Your task to perform on an android device: check battery use Image 0: 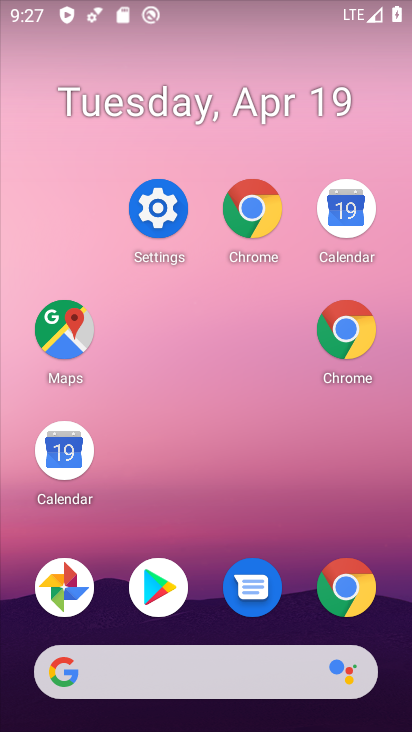
Step 0: drag from (309, 641) to (74, 76)
Your task to perform on an android device: check battery use Image 1: 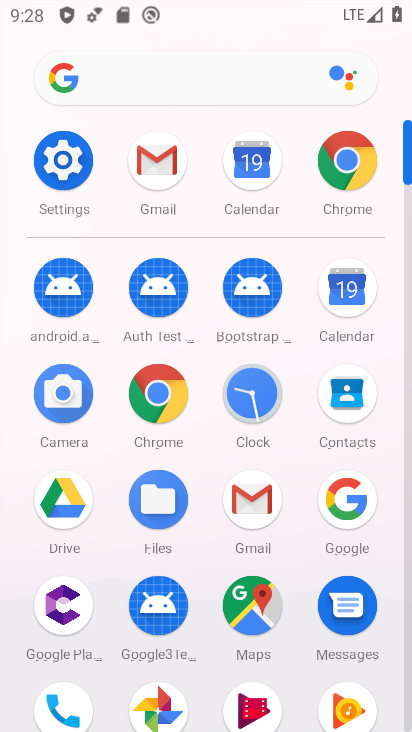
Step 1: click (246, 399)
Your task to perform on an android device: check battery use Image 2: 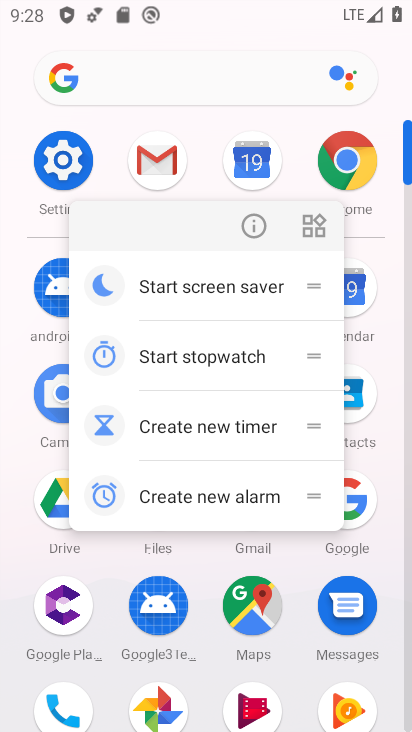
Step 2: click (404, 400)
Your task to perform on an android device: check battery use Image 3: 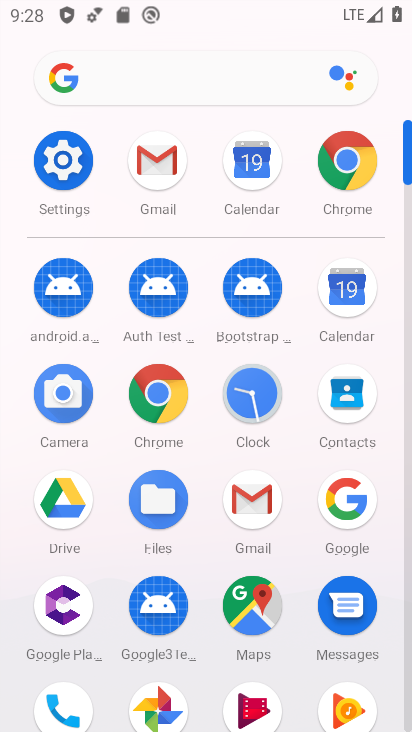
Step 3: click (59, 154)
Your task to perform on an android device: check battery use Image 4: 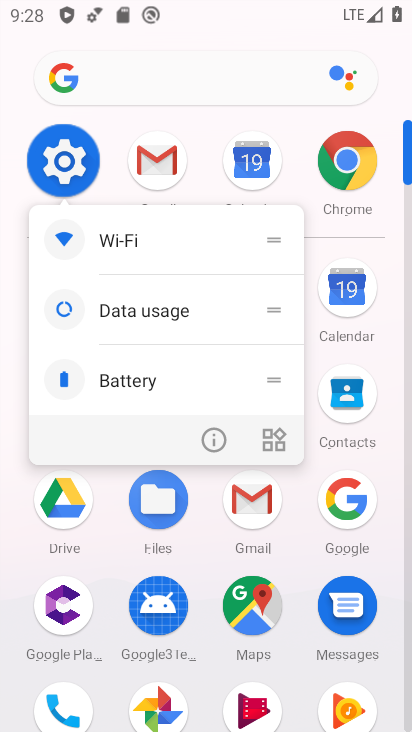
Step 4: click (59, 154)
Your task to perform on an android device: check battery use Image 5: 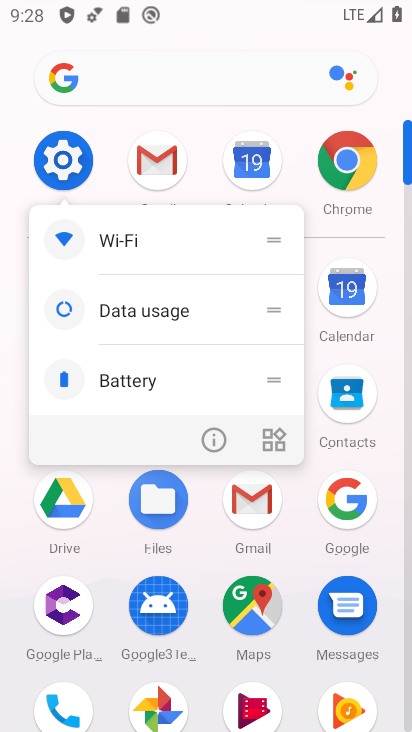
Step 5: click (61, 155)
Your task to perform on an android device: check battery use Image 6: 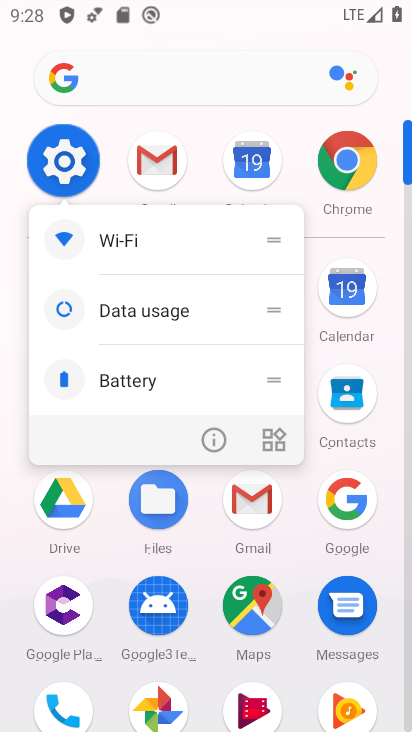
Step 6: click (61, 156)
Your task to perform on an android device: check battery use Image 7: 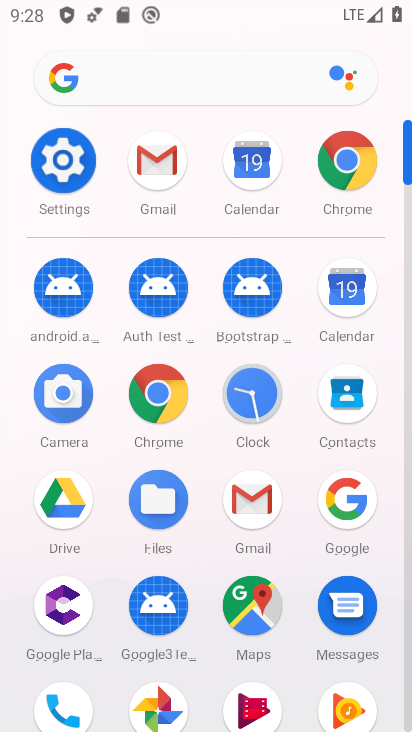
Step 7: click (61, 156)
Your task to perform on an android device: check battery use Image 8: 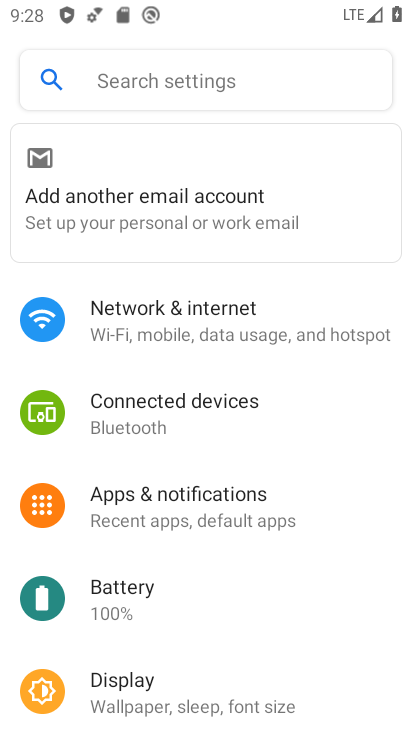
Step 8: drag from (216, 573) to (96, 596)
Your task to perform on an android device: check battery use Image 9: 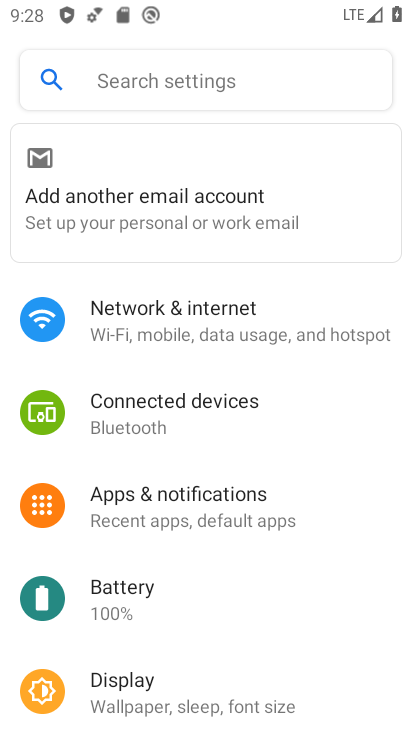
Step 9: click (250, 538)
Your task to perform on an android device: check battery use Image 10: 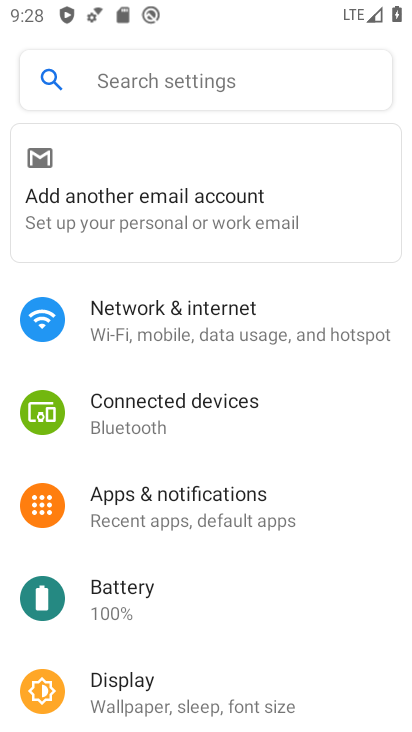
Step 10: click (111, 607)
Your task to perform on an android device: check battery use Image 11: 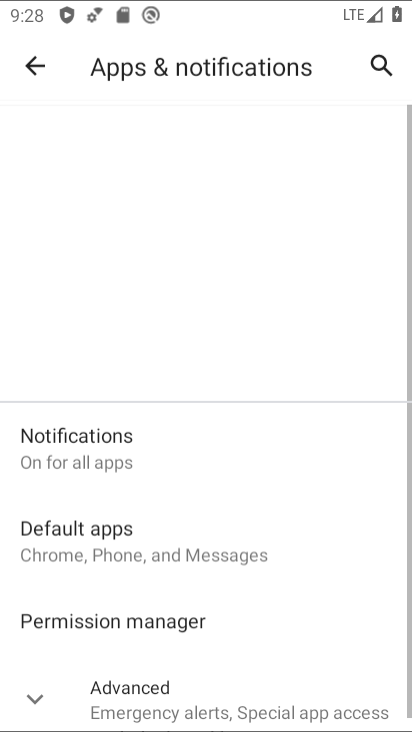
Step 11: drag from (101, 605) to (249, 536)
Your task to perform on an android device: check battery use Image 12: 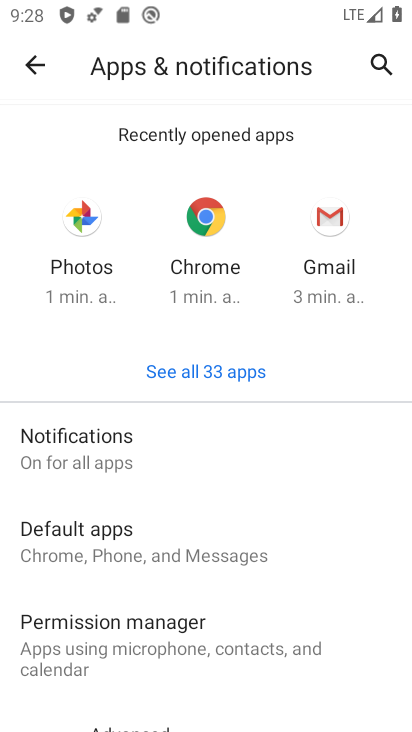
Step 12: click (31, 49)
Your task to perform on an android device: check battery use Image 13: 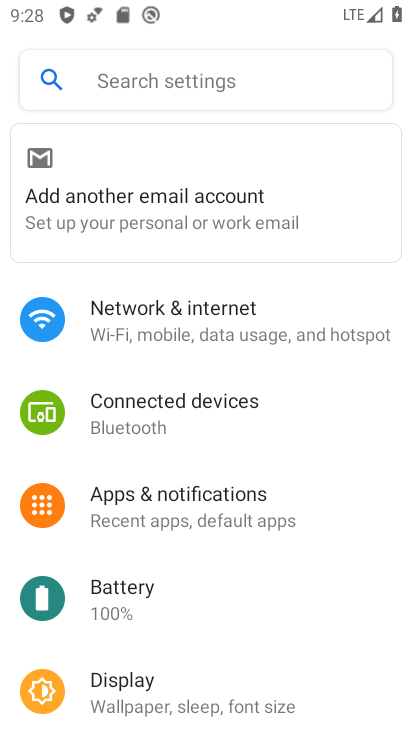
Step 13: click (119, 602)
Your task to perform on an android device: check battery use Image 14: 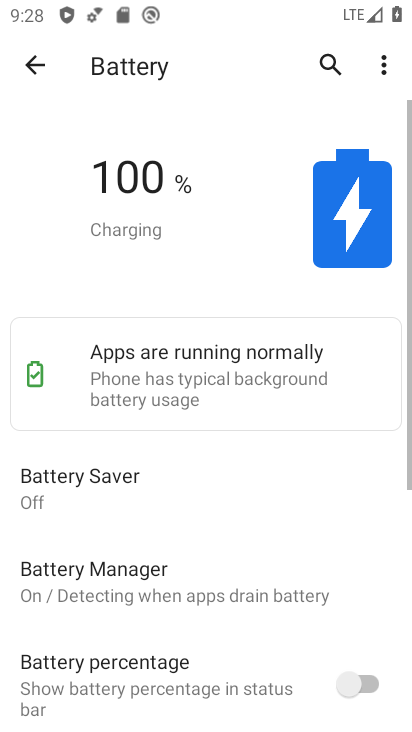
Step 14: task complete